Your task to perform on an android device: toggle translation in the chrome app Image 0: 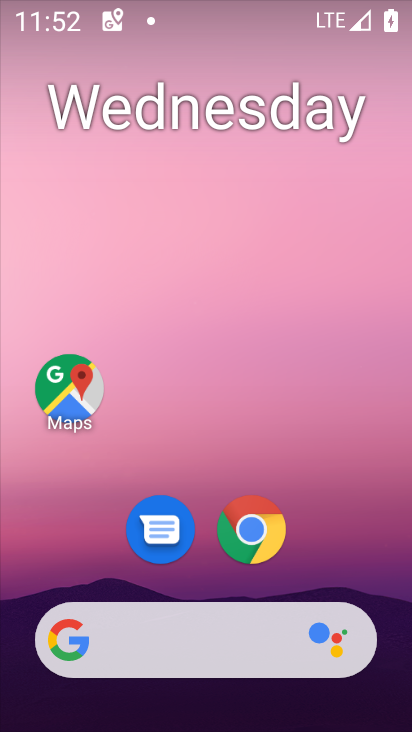
Step 0: click (252, 528)
Your task to perform on an android device: toggle translation in the chrome app Image 1: 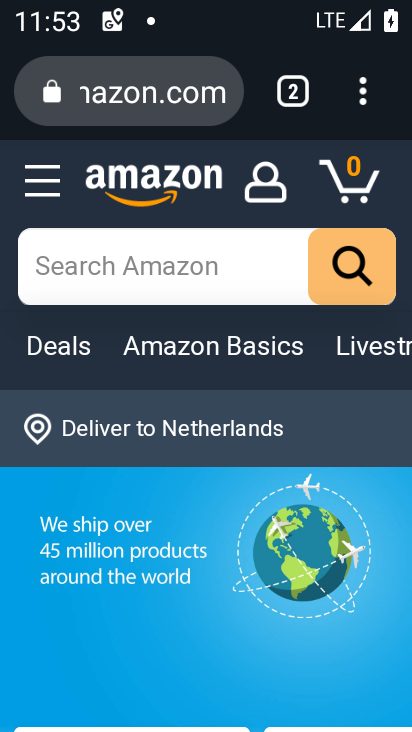
Step 1: click (358, 100)
Your task to perform on an android device: toggle translation in the chrome app Image 2: 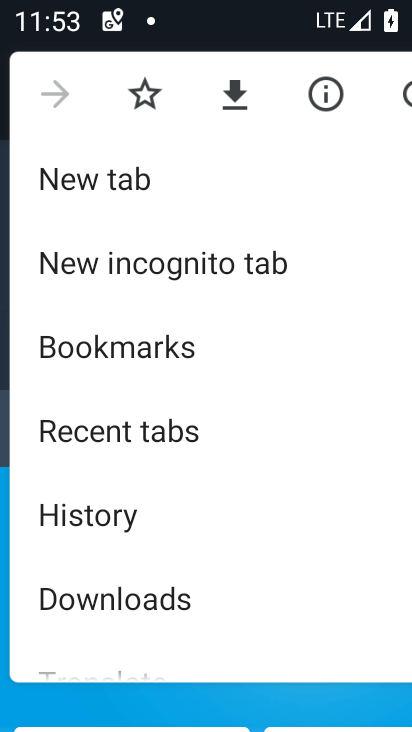
Step 2: drag from (230, 594) to (236, 318)
Your task to perform on an android device: toggle translation in the chrome app Image 3: 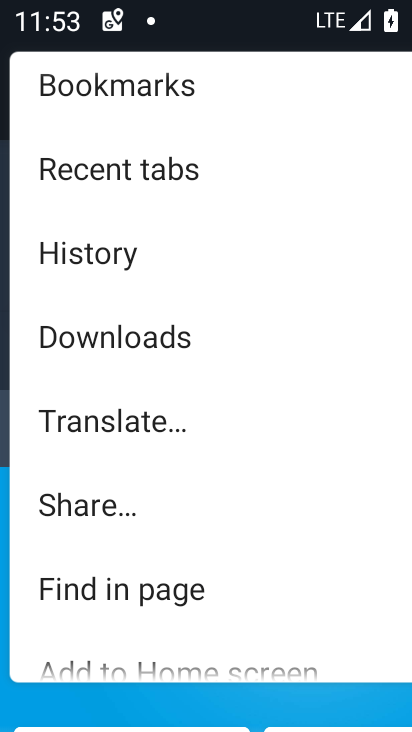
Step 3: drag from (255, 622) to (234, 226)
Your task to perform on an android device: toggle translation in the chrome app Image 4: 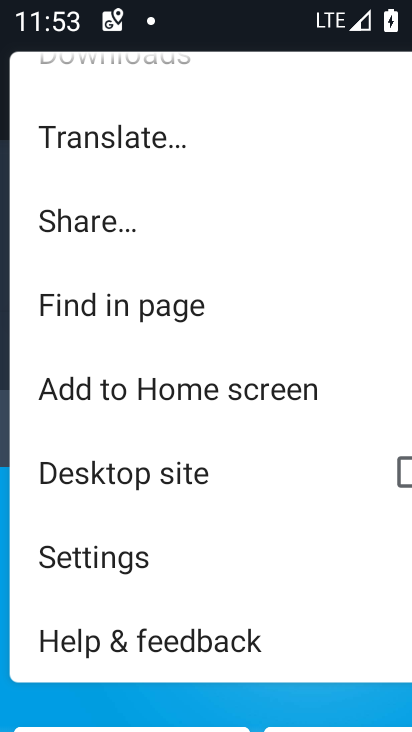
Step 4: click (98, 548)
Your task to perform on an android device: toggle translation in the chrome app Image 5: 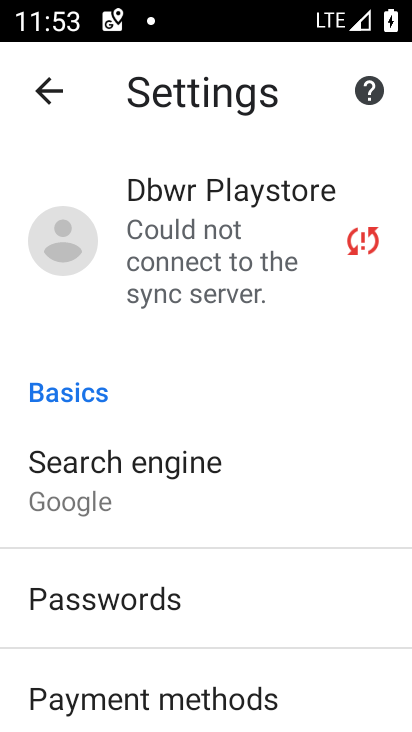
Step 5: drag from (253, 609) to (251, 443)
Your task to perform on an android device: toggle translation in the chrome app Image 6: 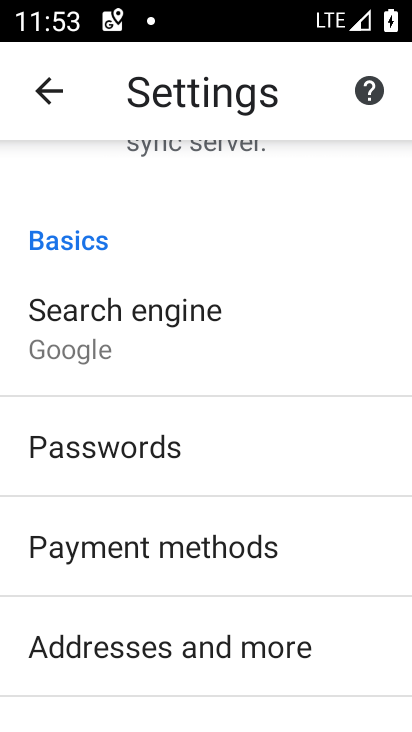
Step 6: drag from (321, 580) to (245, 184)
Your task to perform on an android device: toggle translation in the chrome app Image 7: 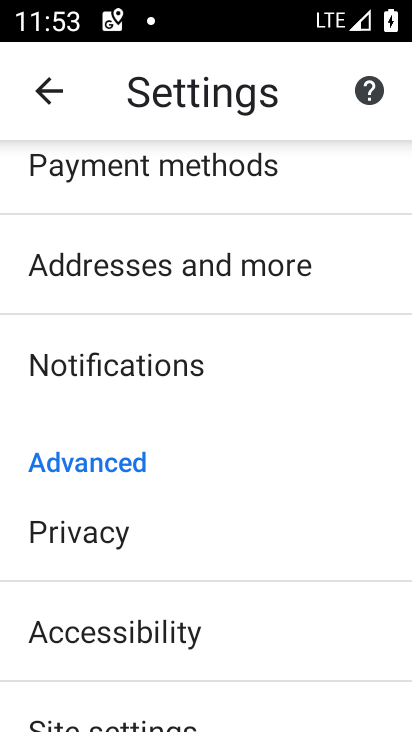
Step 7: drag from (260, 645) to (244, 287)
Your task to perform on an android device: toggle translation in the chrome app Image 8: 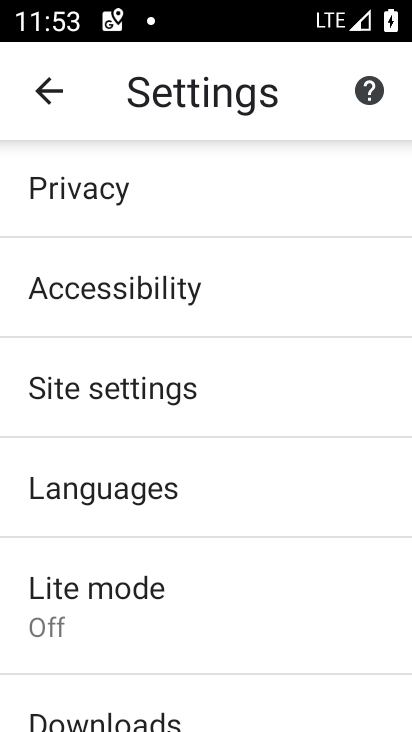
Step 8: click (100, 506)
Your task to perform on an android device: toggle translation in the chrome app Image 9: 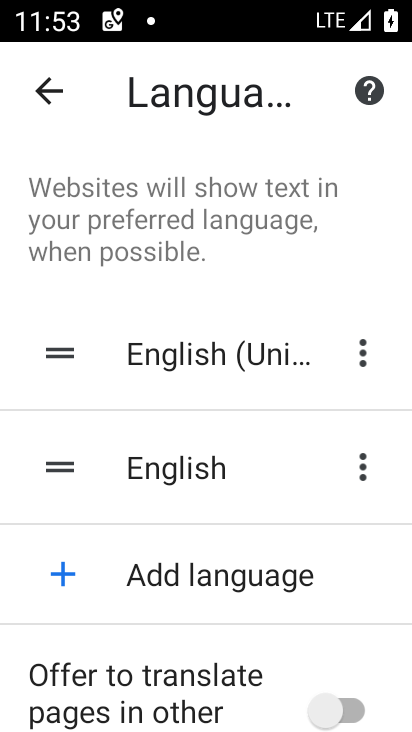
Step 9: drag from (248, 637) to (229, 341)
Your task to perform on an android device: toggle translation in the chrome app Image 10: 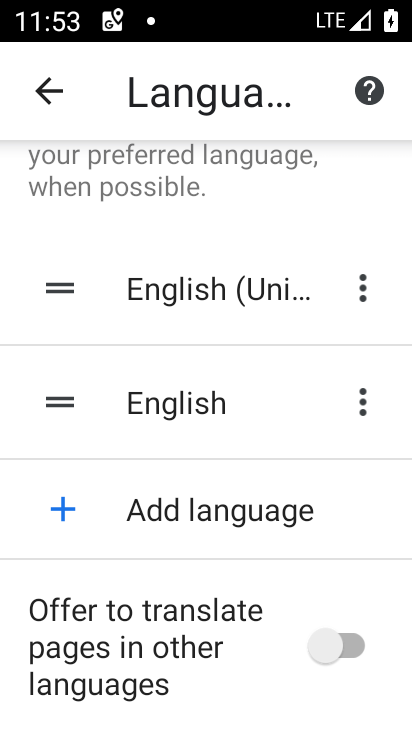
Step 10: click (346, 645)
Your task to perform on an android device: toggle translation in the chrome app Image 11: 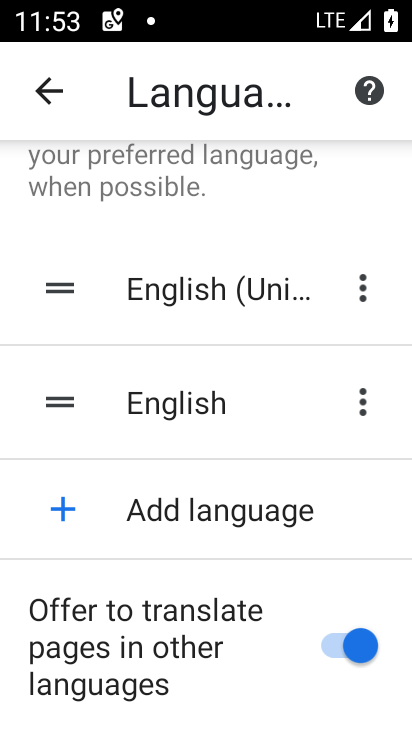
Step 11: task complete